Your task to perform on an android device: Open my contact list Image 0: 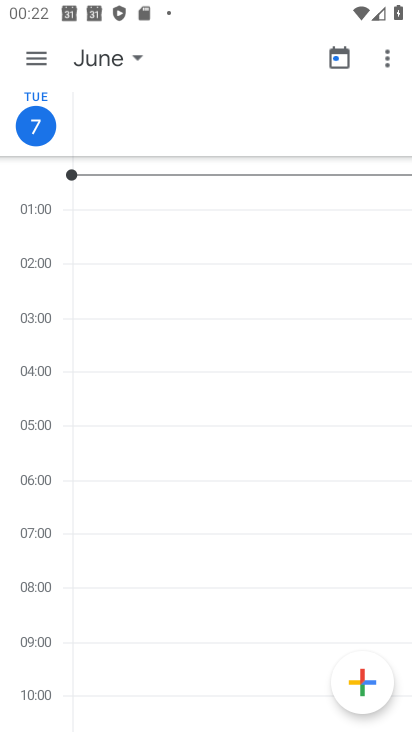
Step 0: press home button
Your task to perform on an android device: Open my contact list Image 1: 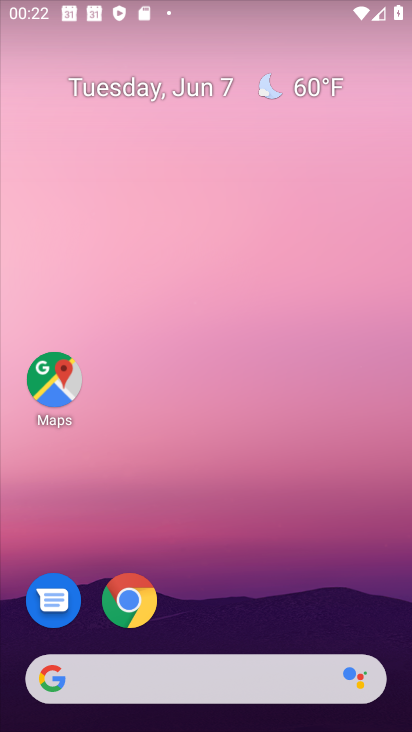
Step 1: drag from (231, 716) to (238, 240)
Your task to perform on an android device: Open my contact list Image 2: 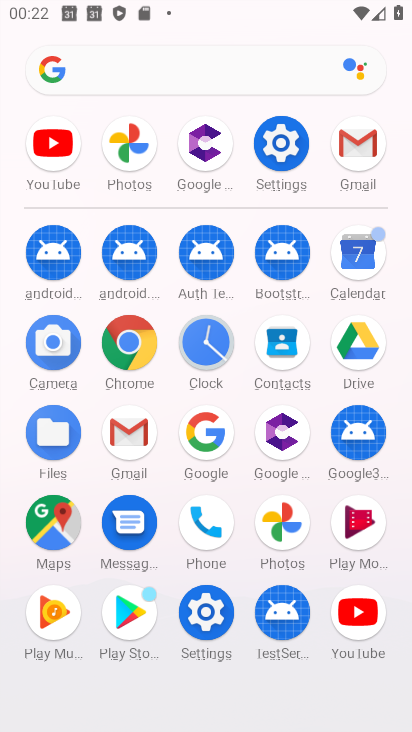
Step 2: click (286, 348)
Your task to perform on an android device: Open my contact list Image 3: 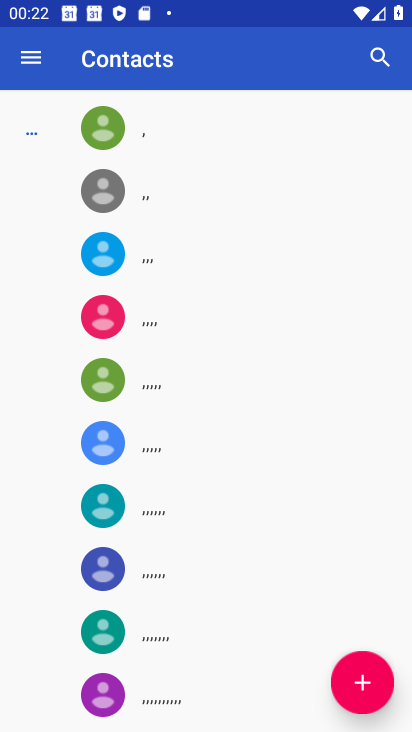
Step 3: task complete